Your task to perform on an android device: Toggle the flashlight Image 0: 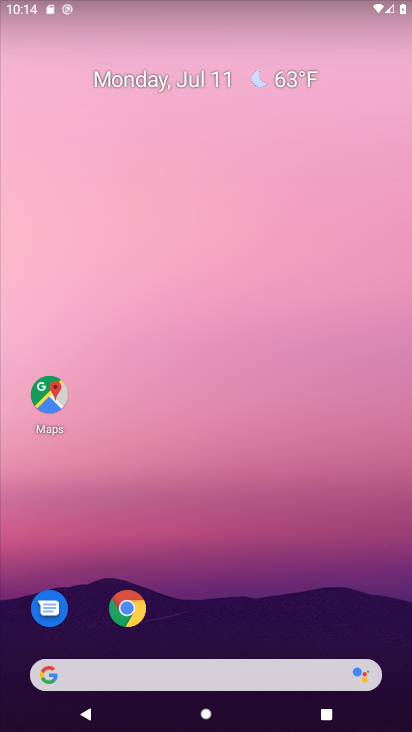
Step 0: drag from (233, 612) to (214, 177)
Your task to perform on an android device: Toggle the flashlight Image 1: 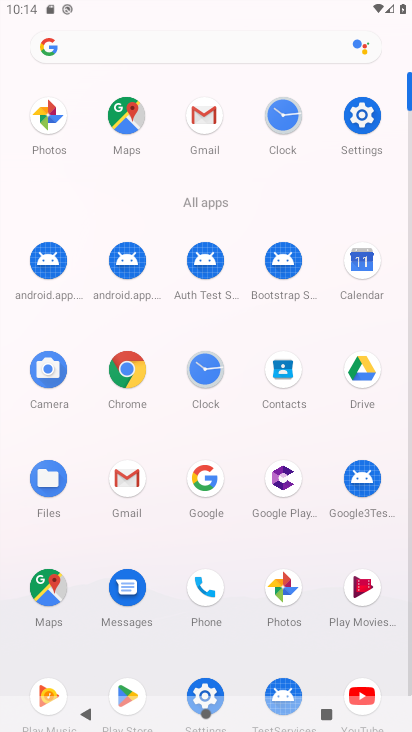
Step 1: click (376, 125)
Your task to perform on an android device: Toggle the flashlight Image 2: 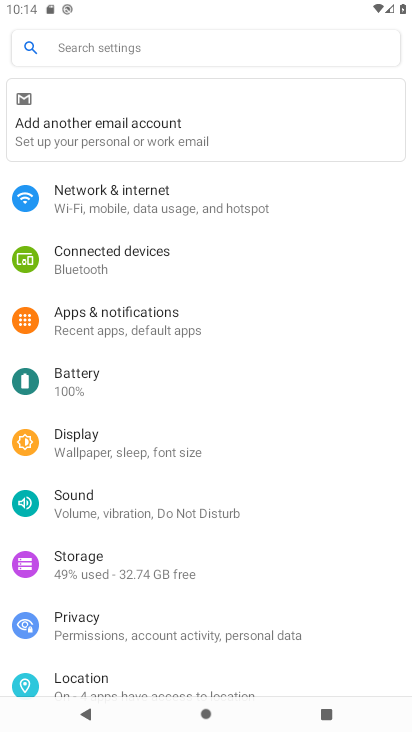
Step 2: task complete